Your task to perform on an android device: visit the assistant section in the google photos Image 0: 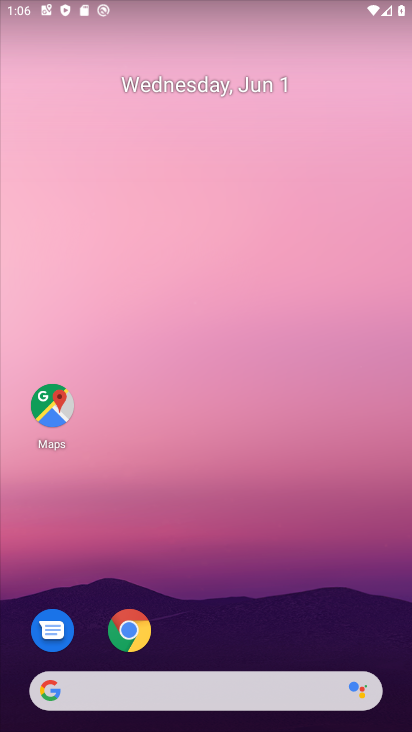
Step 0: drag from (225, 645) to (151, 61)
Your task to perform on an android device: visit the assistant section in the google photos Image 1: 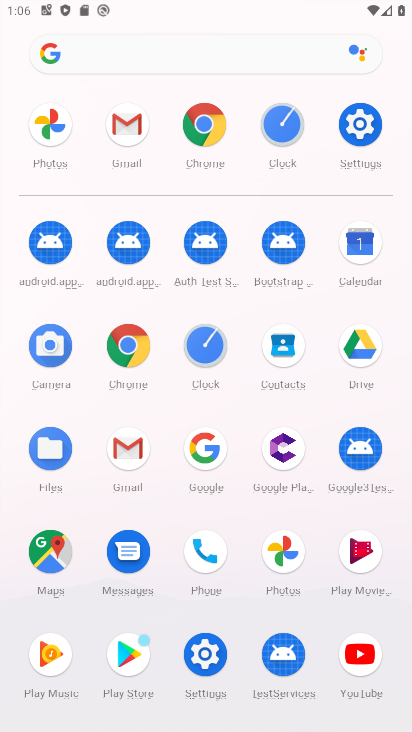
Step 1: click (47, 131)
Your task to perform on an android device: visit the assistant section in the google photos Image 2: 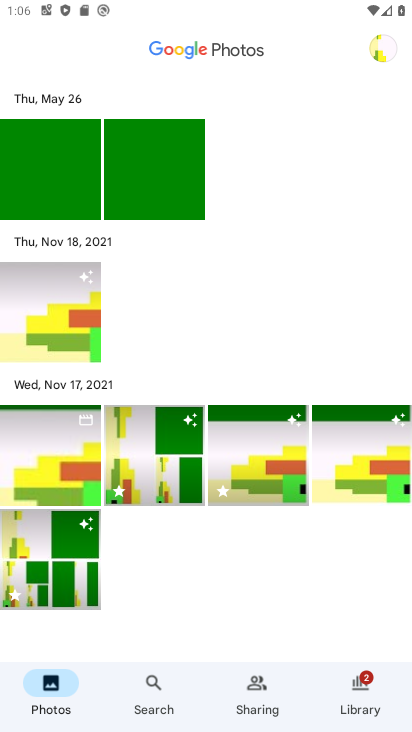
Step 2: click (361, 687)
Your task to perform on an android device: visit the assistant section in the google photos Image 3: 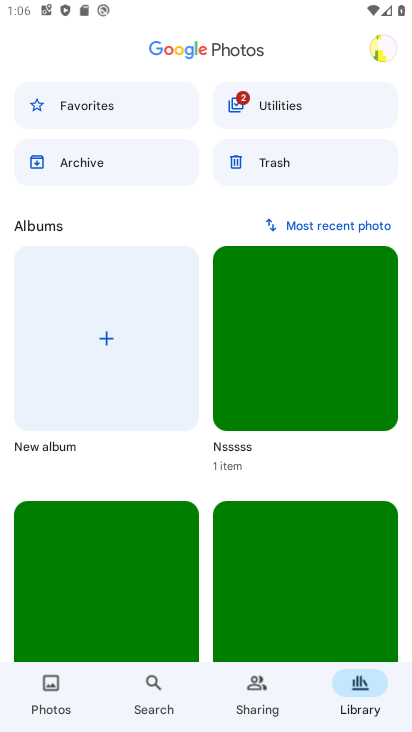
Step 3: task complete